Your task to perform on an android device: Search for "bose soundlink" on bestbuy.com, select the first entry, add it to the cart, then select checkout. Image 0: 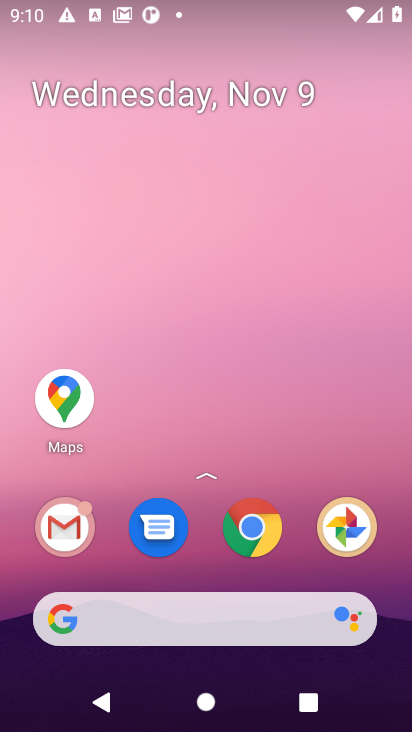
Step 0: click (251, 542)
Your task to perform on an android device: Search for "bose soundlink" on bestbuy.com, select the first entry, add it to the cart, then select checkout. Image 1: 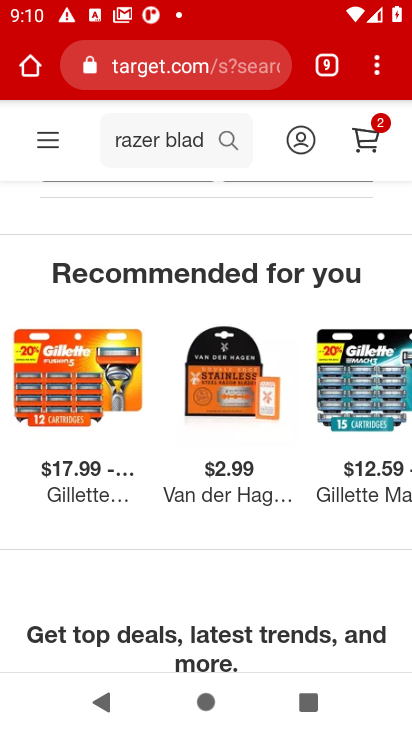
Step 1: click (172, 76)
Your task to perform on an android device: Search for "bose soundlink" on bestbuy.com, select the first entry, add it to the cart, then select checkout. Image 2: 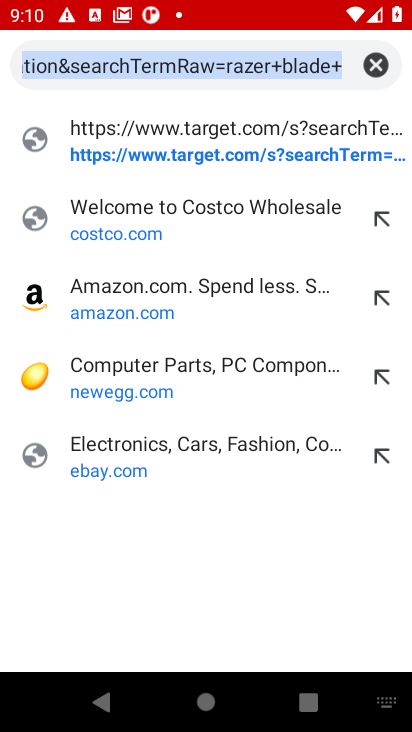
Step 2: type "bestbuy.com"
Your task to perform on an android device: Search for "bose soundlink" on bestbuy.com, select the first entry, add it to the cart, then select checkout. Image 3: 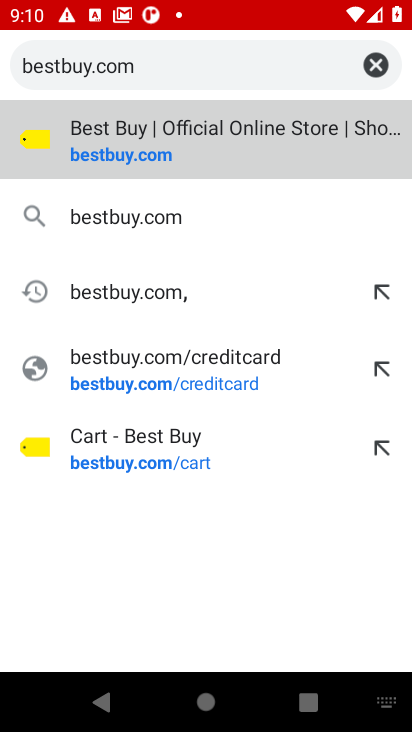
Step 3: click (123, 159)
Your task to perform on an android device: Search for "bose soundlink" on bestbuy.com, select the first entry, add it to the cart, then select checkout. Image 4: 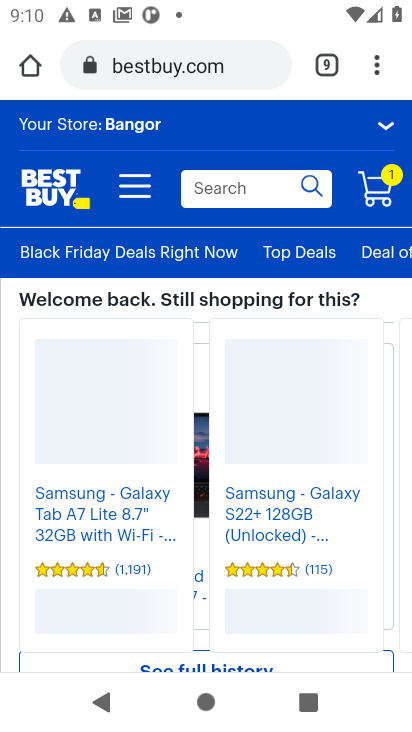
Step 4: click (229, 178)
Your task to perform on an android device: Search for "bose soundlink" on bestbuy.com, select the first entry, add it to the cart, then select checkout. Image 5: 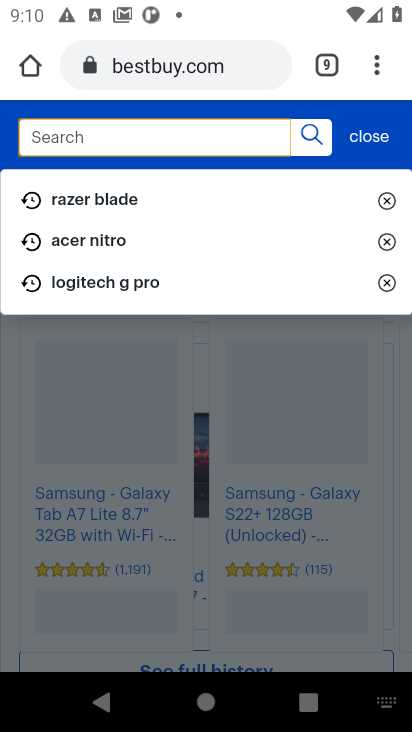
Step 5: type "bose soundlink"
Your task to perform on an android device: Search for "bose soundlink" on bestbuy.com, select the first entry, add it to the cart, then select checkout. Image 6: 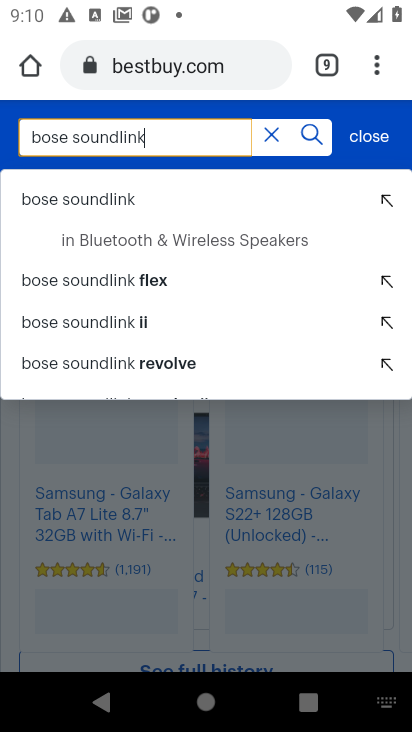
Step 6: click (63, 205)
Your task to perform on an android device: Search for "bose soundlink" on bestbuy.com, select the first entry, add it to the cart, then select checkout. Image 7: 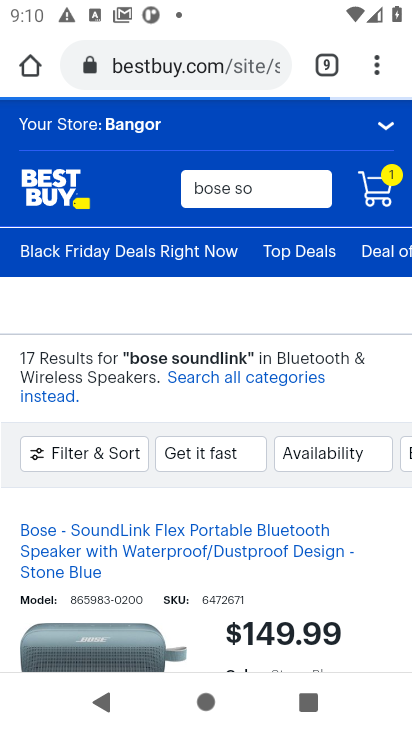
Step 7: drag from (190, 539) to (214, 295)
Your task to perform on an android device: Search for "bose soundlink" on bestbuy.com, select the first entry, add it to the cart, then select checkout. Image 8: 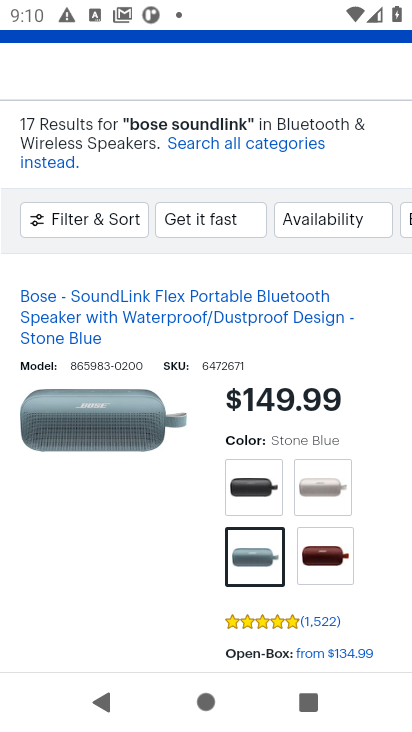
Step 8: drag from (189, 543) to (224, 356)
Your task to perform on an android device: Search for "bose soundlink" on bestbuy.com, select the first entry, add it to the cart, then select checkout. Image 9: 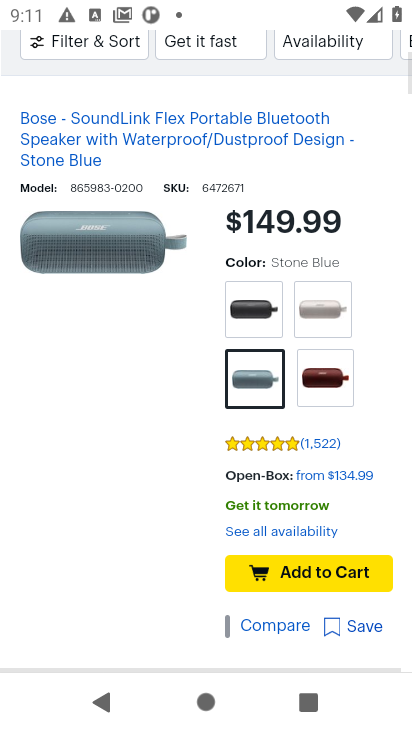
Step 9: click (318, 577)
Your task to perform on an android device: Search for "bose soundlink" on bestbuy.com, select the first entry, add it to the cart, then select checkout. Image 10: 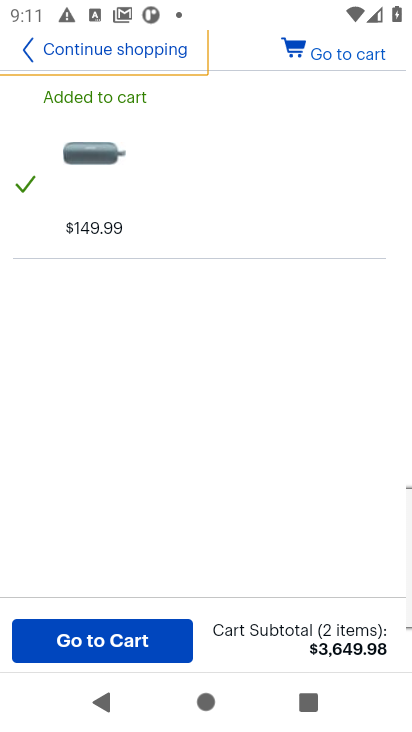
Step 10: click (340, 57)
Your task to perform on an android device: Search for "bose soundlink" on bestbuy.com, select the first entry, add it to the cart, then select checkout. Image 11: 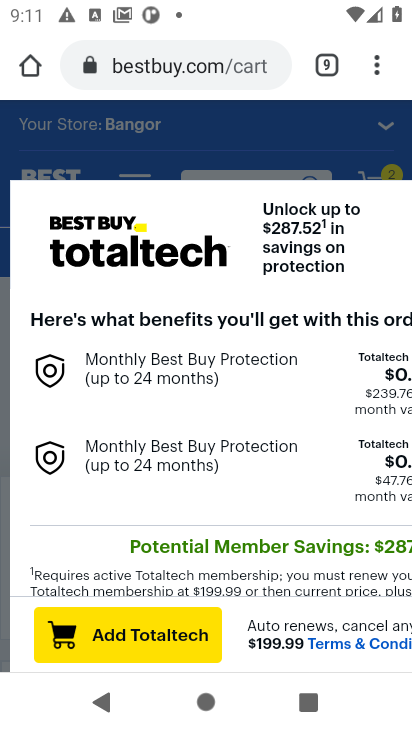
Step 11: click (305, 148)
Your task to perform on an android device: Search for "bose soundlink" on bestbuy.com, select the first entry, add it to the cart, then select checkout. Image 12: 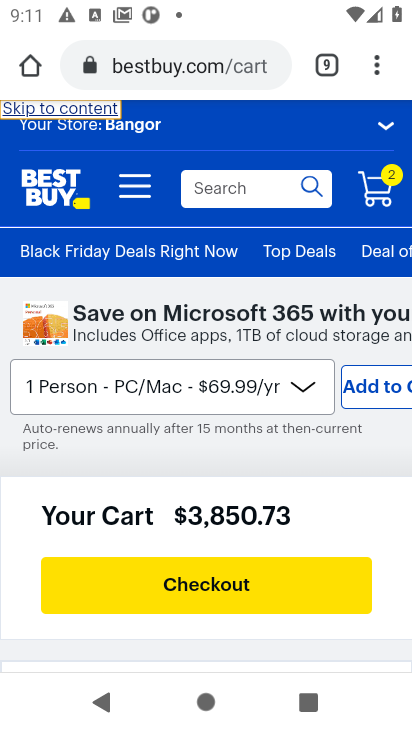
Step 12: click (218, 580)
Your task to perform on an android device: Search for "bose soundlink" on bestbuy.com, select the first entry, add it to the cart, then select checkout. Image 13: 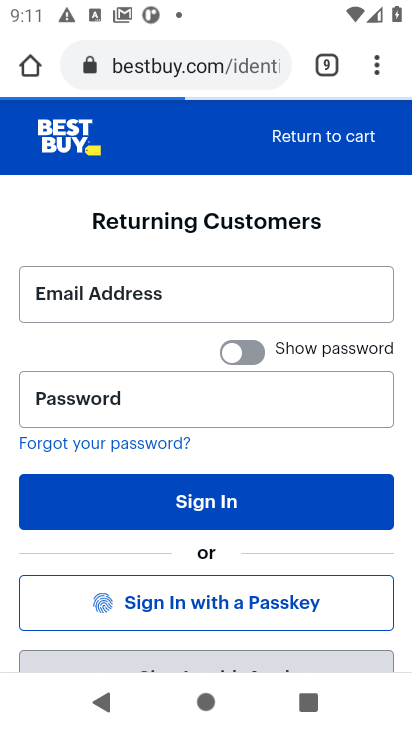
Step 13: task complete